Your task to perform on an android device: When is my next meeting? Image 0: 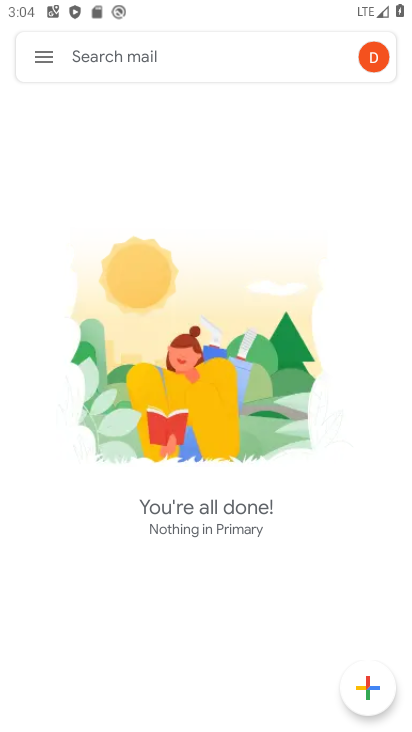
Step 0: press home button
Your task to perform on an android device: When is my next meeting? Image 1: 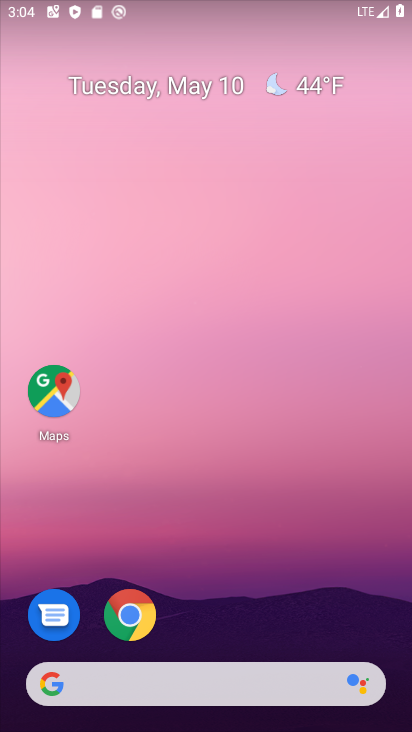
Step 1: drag from (255, 536) to (400, 45)
Your task to perform on an android device: When is my next meeting? Image 2: 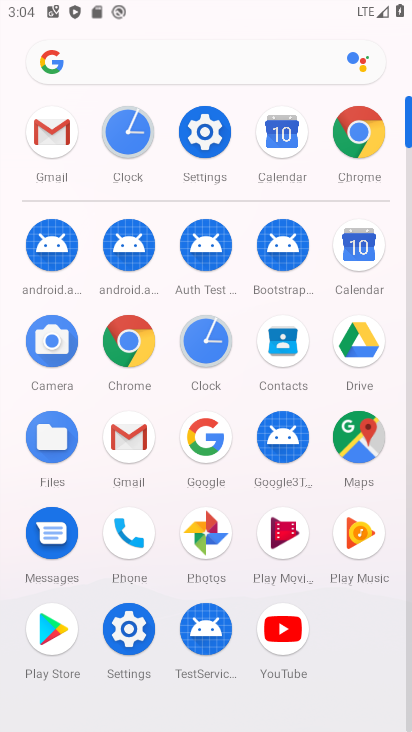
Step 2: click (356, 246)
Your task to perform on an android device: When is my next meeting? Image 3: 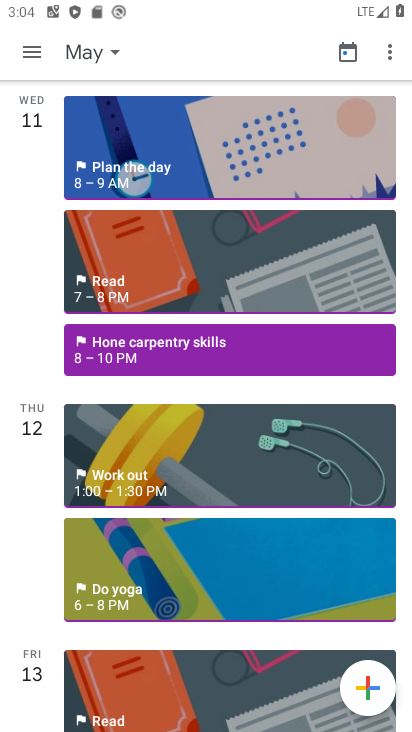
Step 3: click (41, 43)
Your task to perform on an android device: When is my next meeting? Image 4: 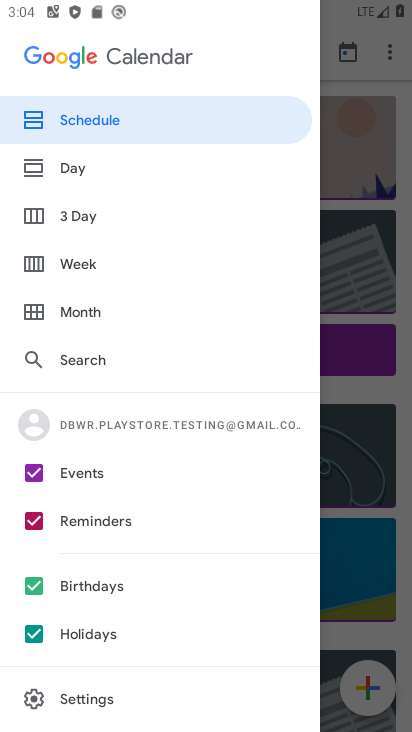
Step 4: click (111, 118)
Your task to perform on an android device: When is my next meeting? Image 5: 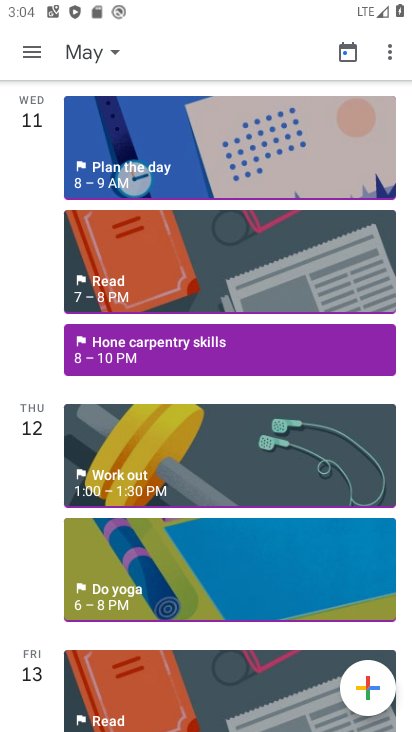
Step 5: task complete